Your task to perform on an android device: When is my next meeting? Image 0: 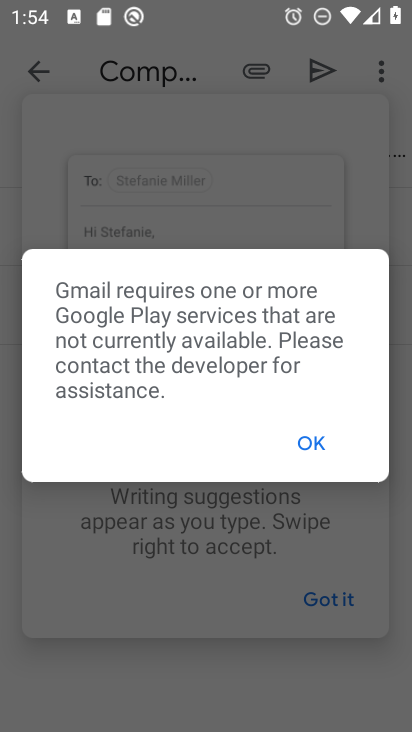
Step 0: press home button
Your task to perform on an android device: When is my next meeting? Image 1: 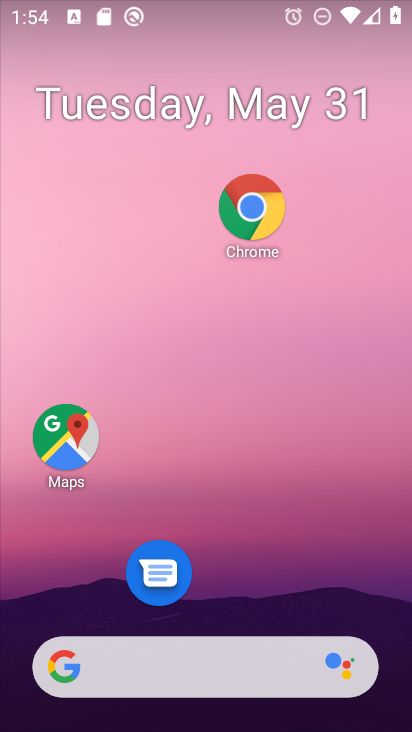
Step 1: drag from (201, 681) to (231, 255)
Your task to perform on an android device: When is my next meeting? Image 2: 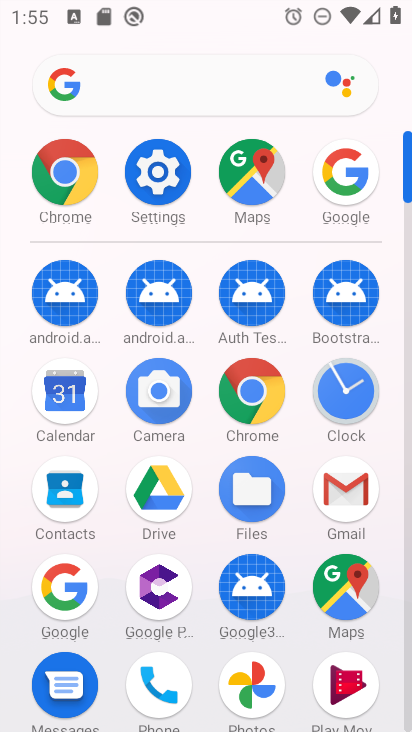
Step 2: click (72, 415)
Your task to perform on an android device: When is my next meeting? Image 3: 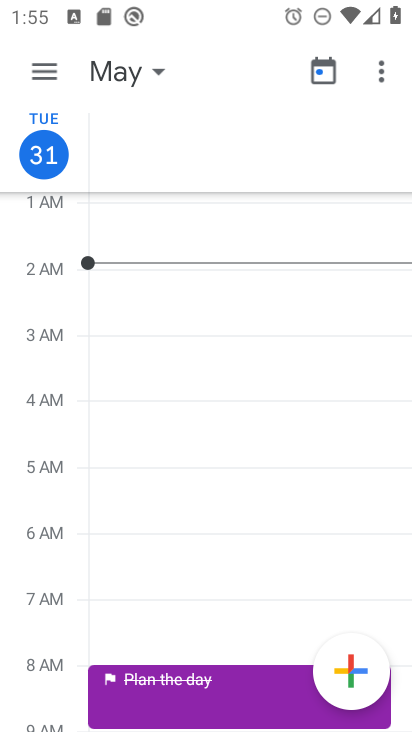
Step 3: task complete